Your task to perform on an android device: change the clock display to show seconds Image 0: 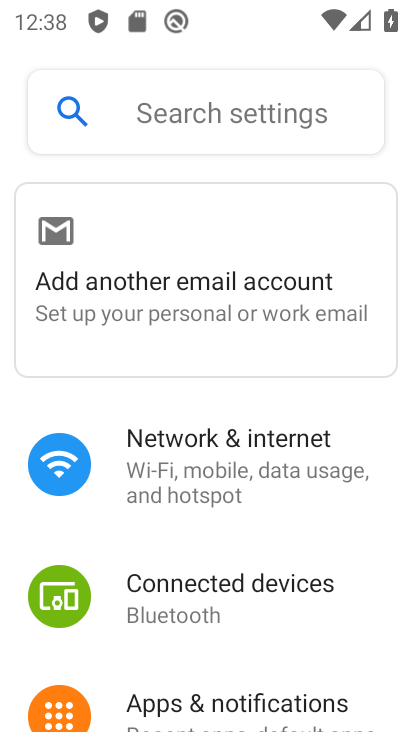
Step 0: press home button
Your task to perform on an android device: change the clock display to show seconds Image 1: 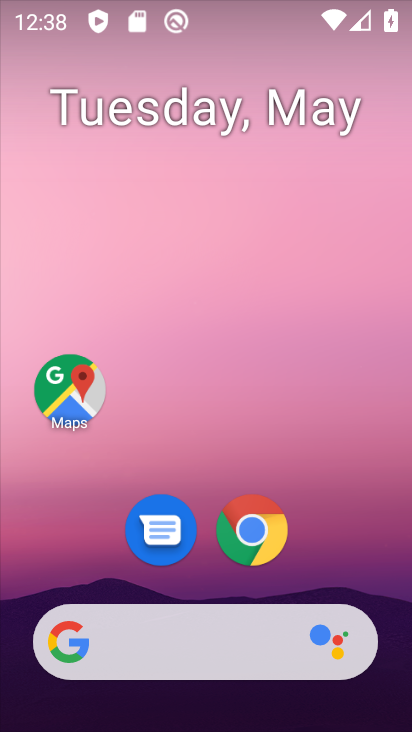
Step 1: drag from (189, 574) to (205, 195)
Your task to perform on an android device: change the clock display to show seconds Image 2: 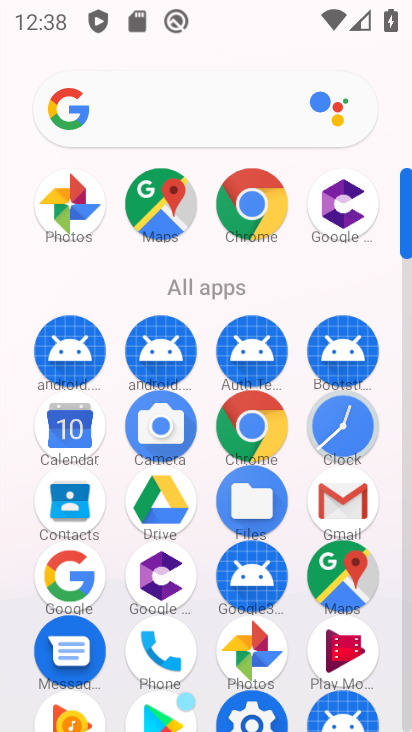
Step 2: click (344, 430)
Your task to perform on an android device: change the clock display to show seconds Image 3: 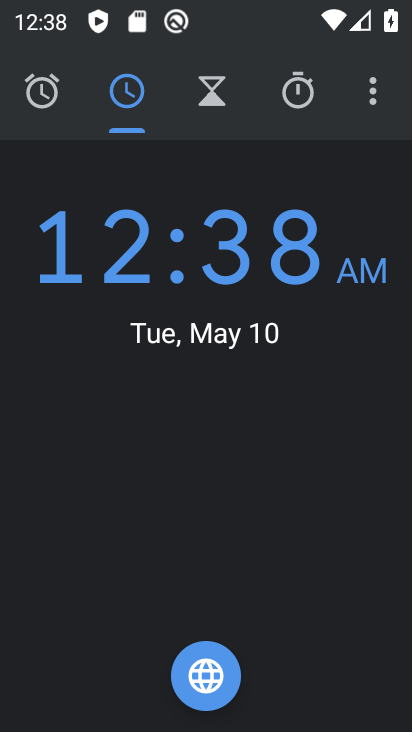
Step 3: click (370, 99)
Your task to perform on an android device: change the clock display to show seconds Image 4: 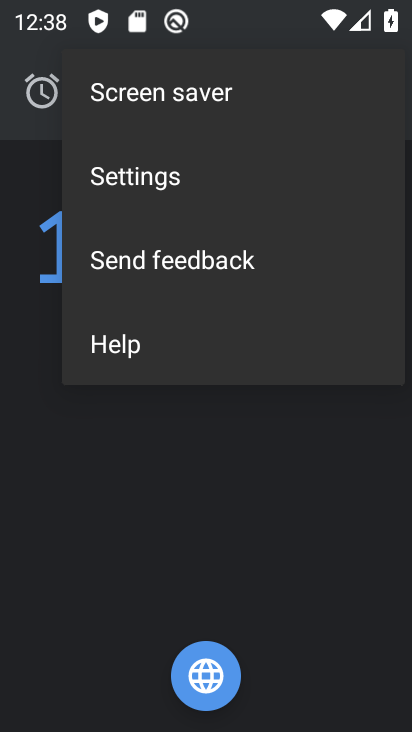
Step 4: click (127, 181)
Your task to perform on an android device: change the clock display to show seconds Image 5: 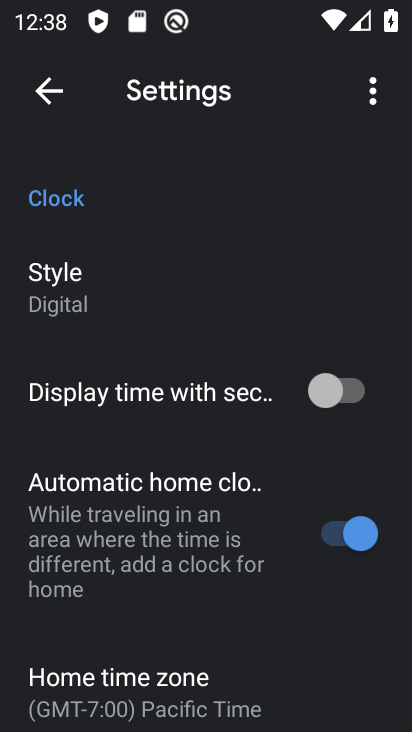
Step 5: click (340, 396)
Your task to perform on an android device: change the clock display to show seconds Image 6: 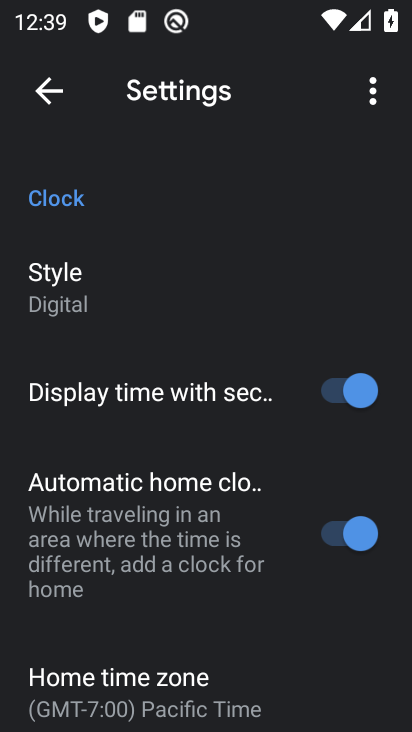
Step 6: task complete